Your task to perform on an android device: Open the map Image 0: 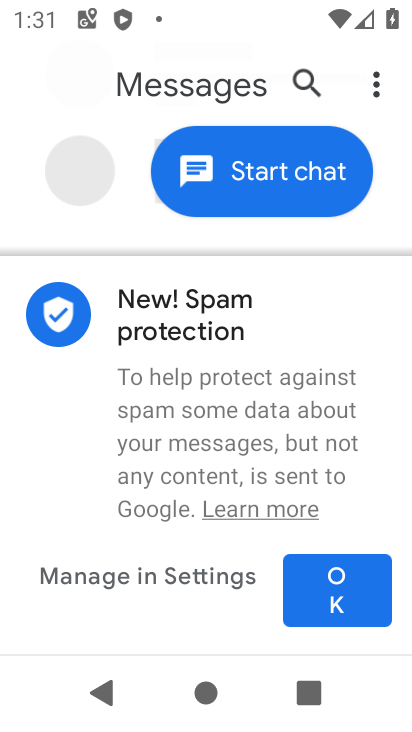
Step 0: press home button
Your task to perform on an android device: Open the map Image 1: 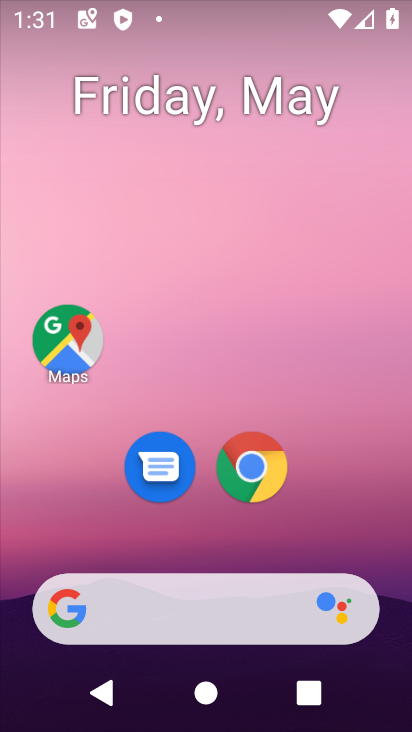
Step 1: click (77, 329)
Your task to perform on an android device: Open the map Image 2: 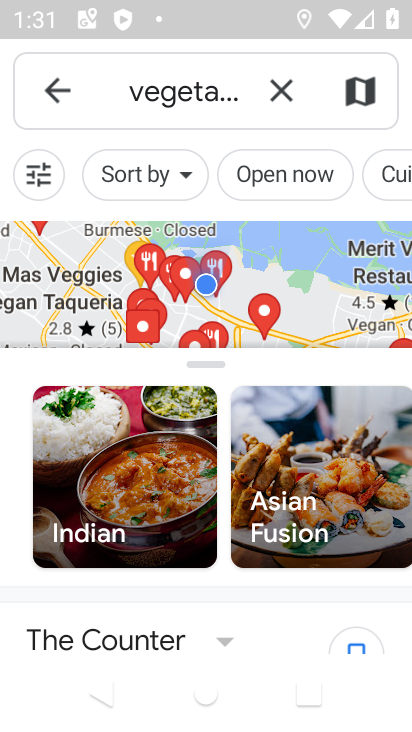
Step 2: task complete